Your task to perform on an android device: What's the news in Colombia? Image 0: 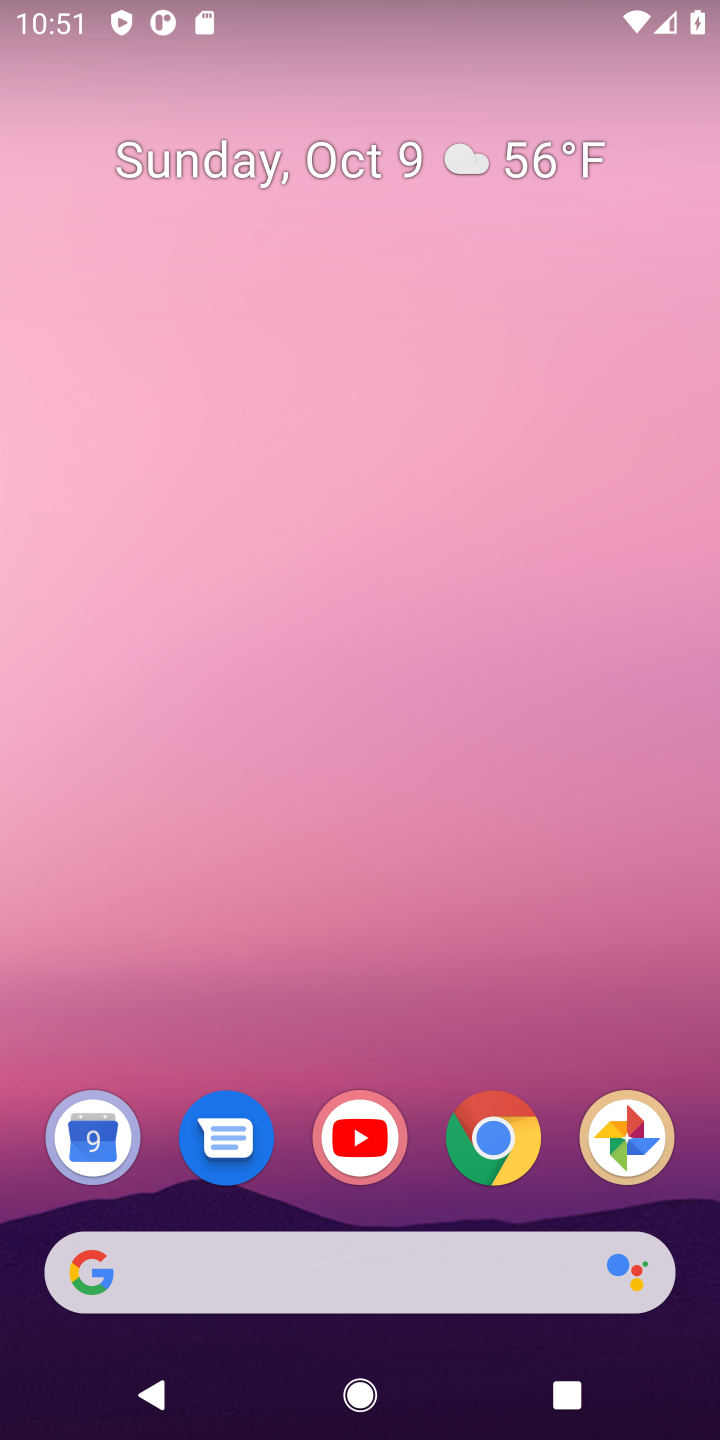
Step 0: drag from (402, 1024) to (326, 80)
Your task to perform on an android device: What's the news in Colombia? Image 1: 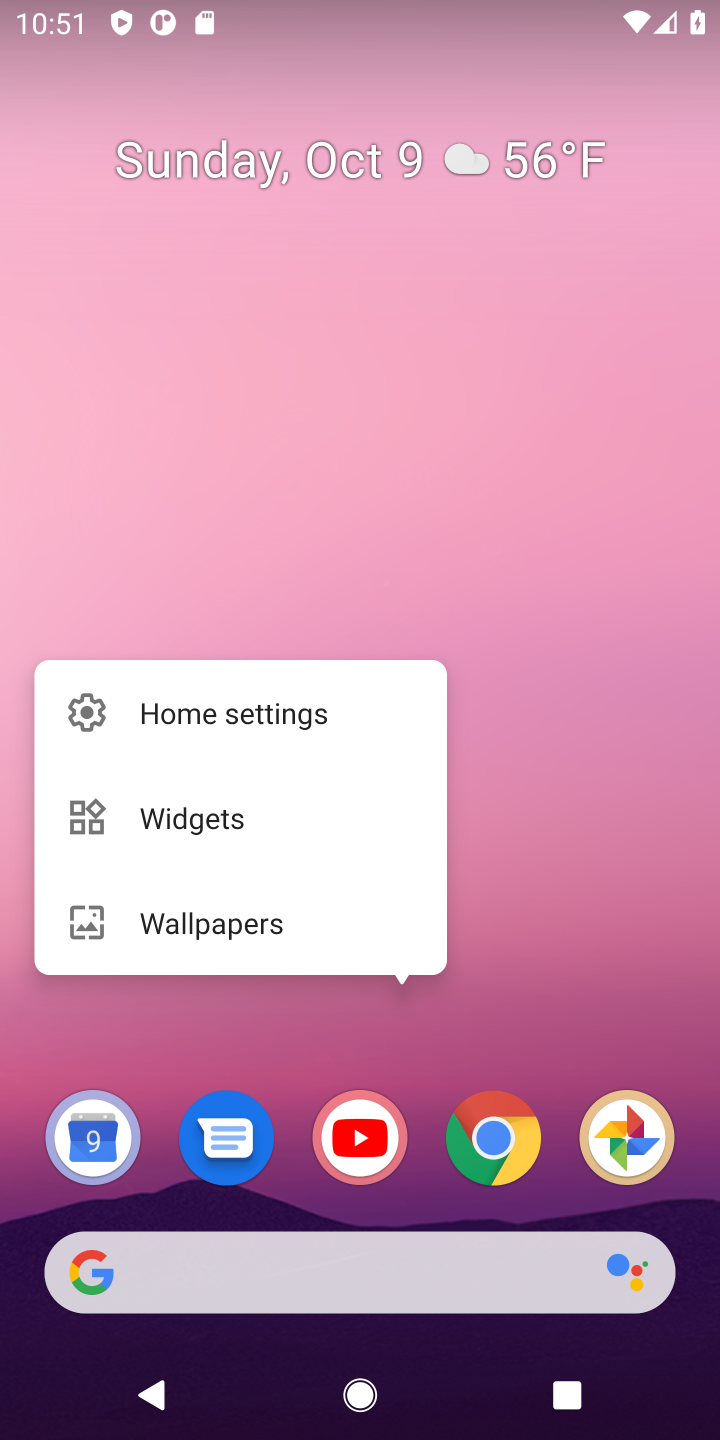
Step 1: click (568, 925)
Your task to perform on an android device: What's the news in Colombia? Image 2: 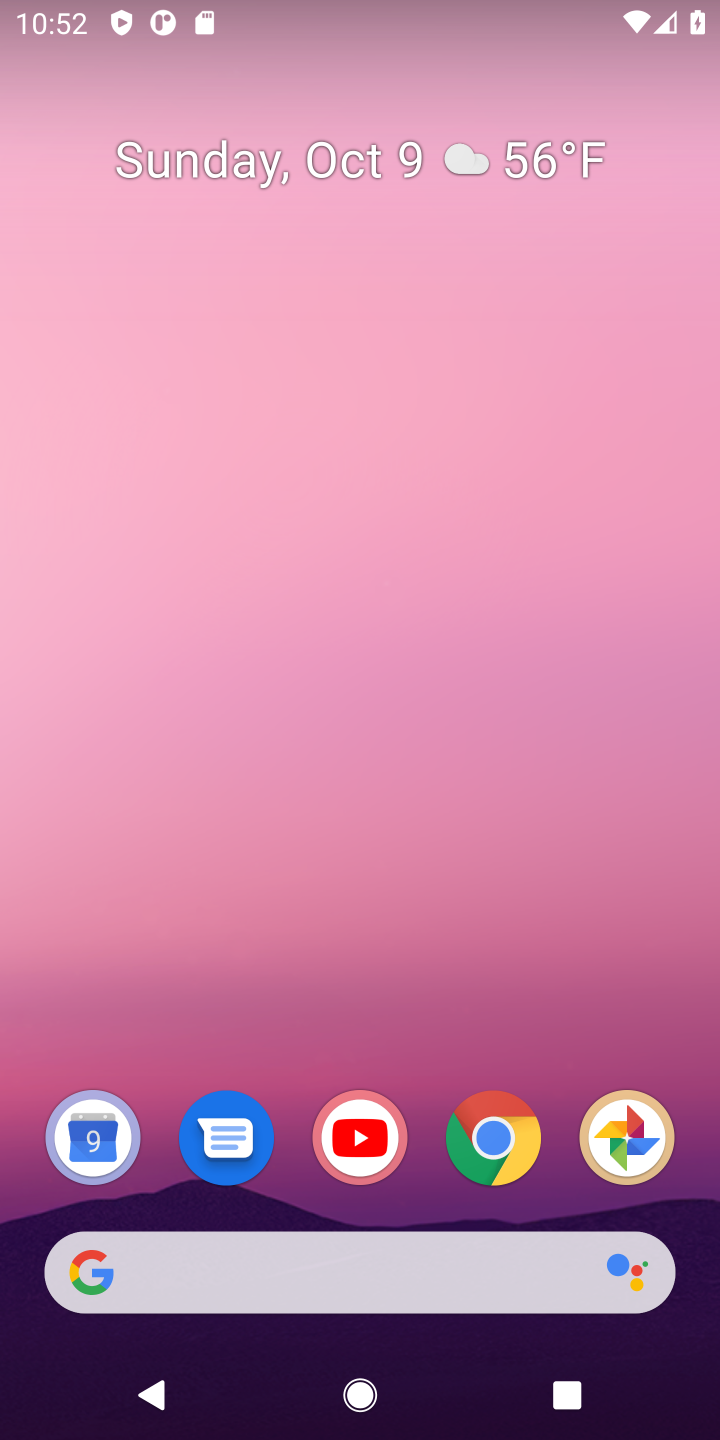
Step 2: drag from (564, 1094) to (401, 201)
Your task to perform on an android device: What's the news in Colombia? Image 3: 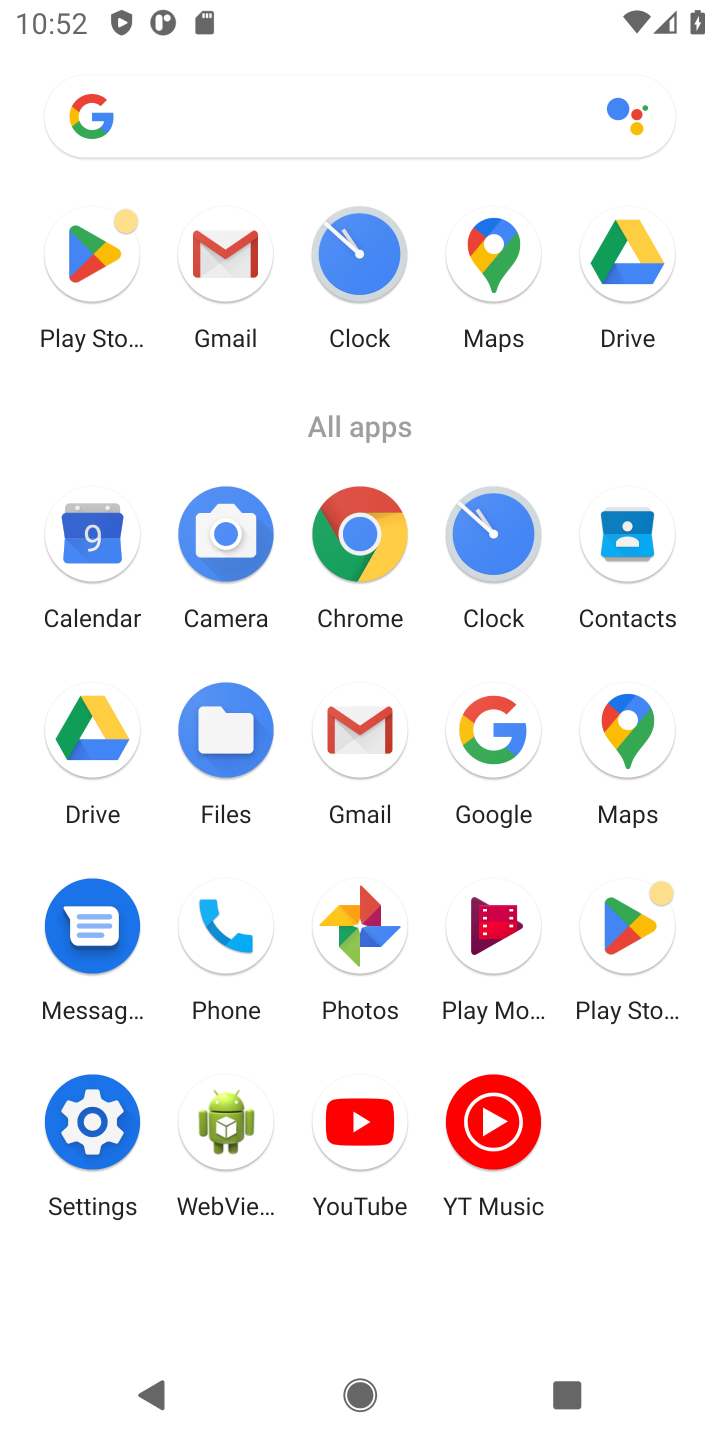
Step 3: click (348, 549)
Your task to perform on an android device: What's the news in Colombia? Image 4: 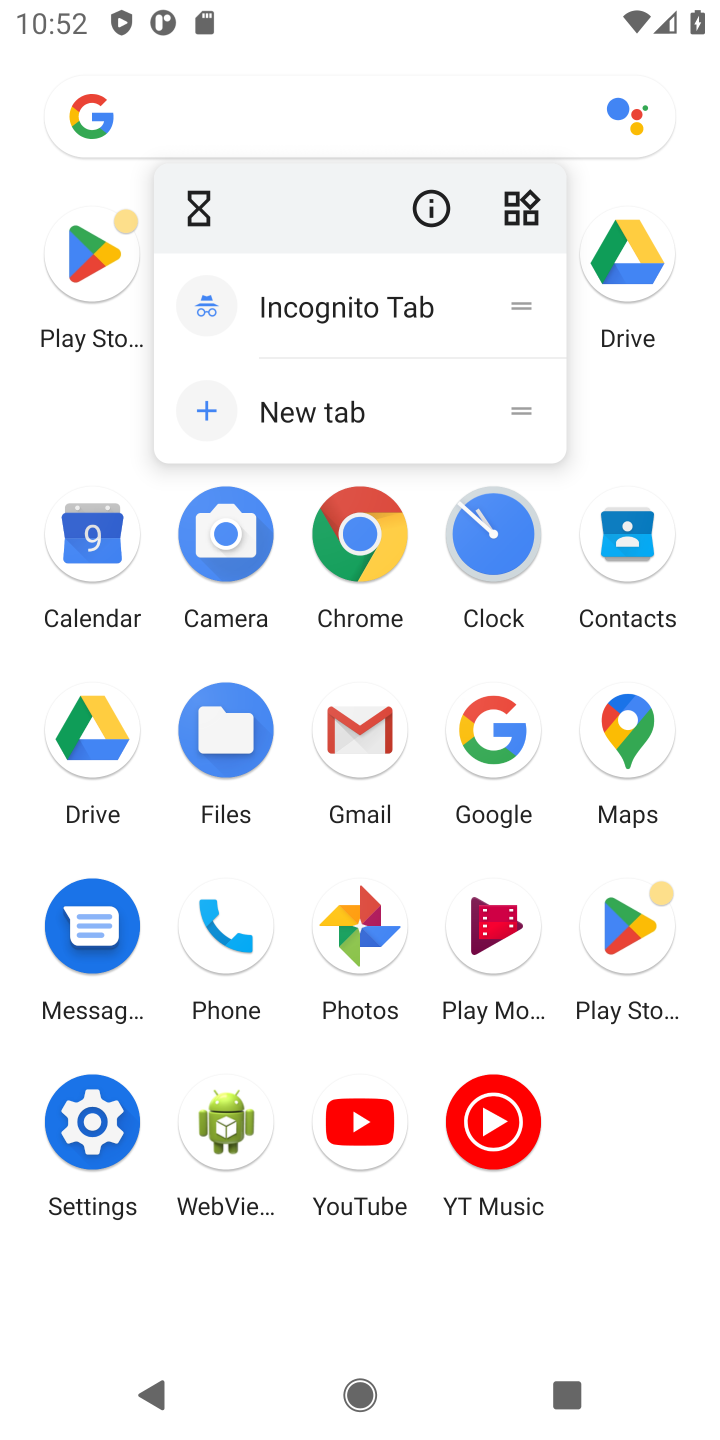
Step 4: click (359, 535)
Your task to perform on an android device: What's the news in Colombia? Image 5: 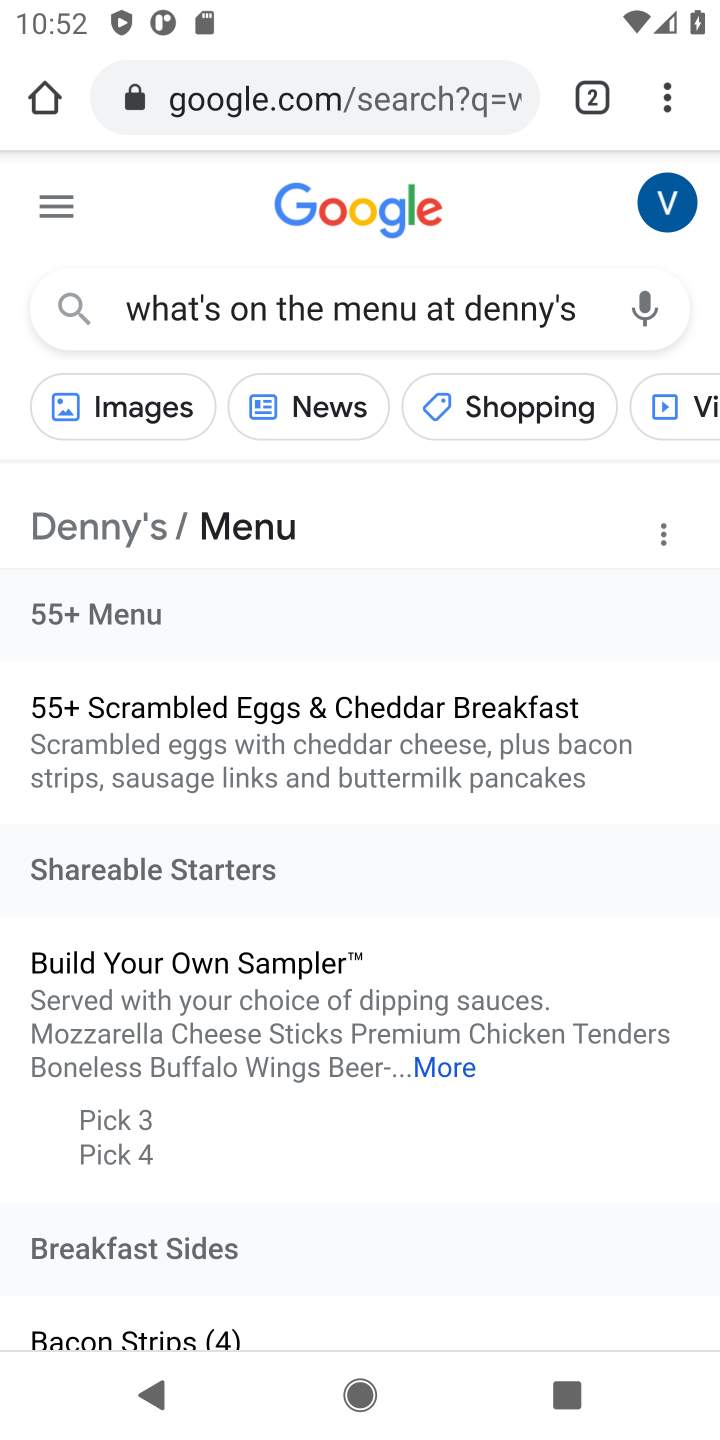
Step 5: click (248, 100)
Your task to perform on an android device: What's the news in Colombia? Image 6: 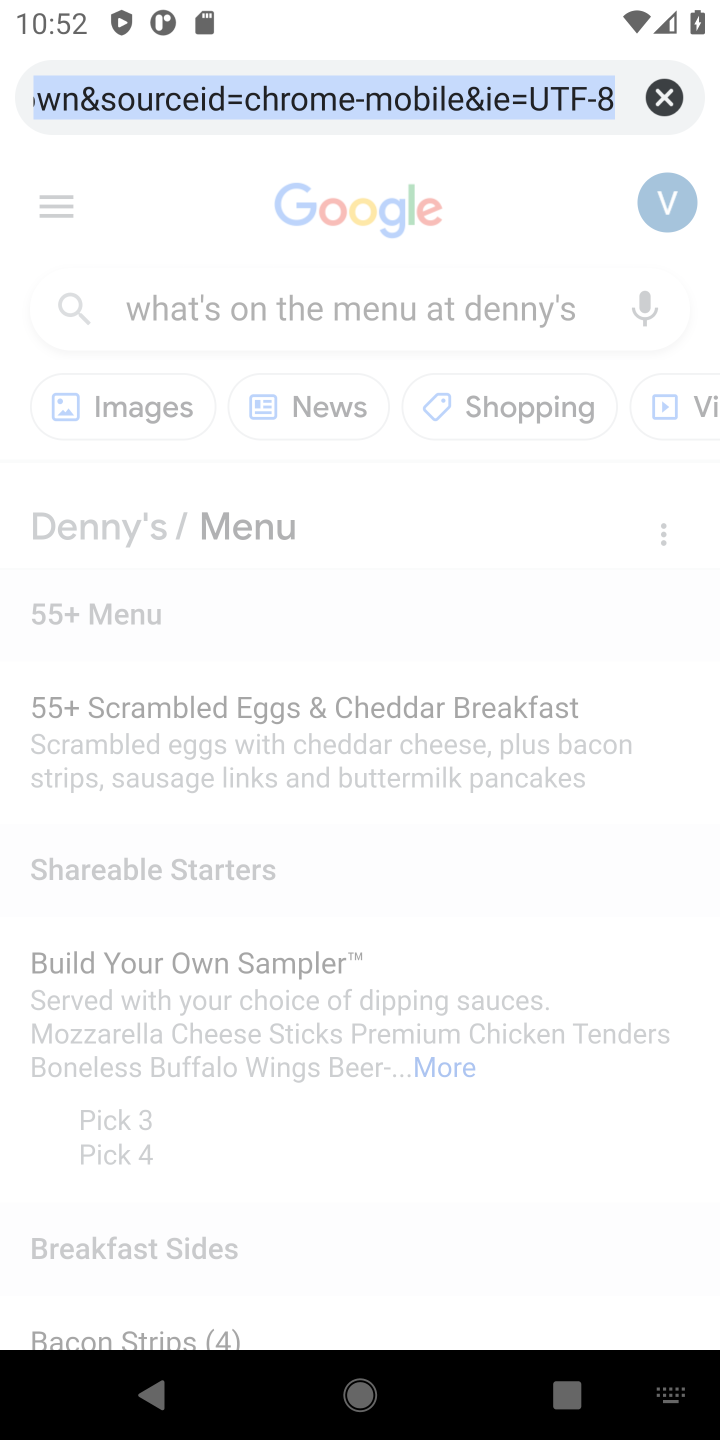
Step 6: click (658, 78)
Your task to perform on an android device: What's the news in Colombia? Image 7: 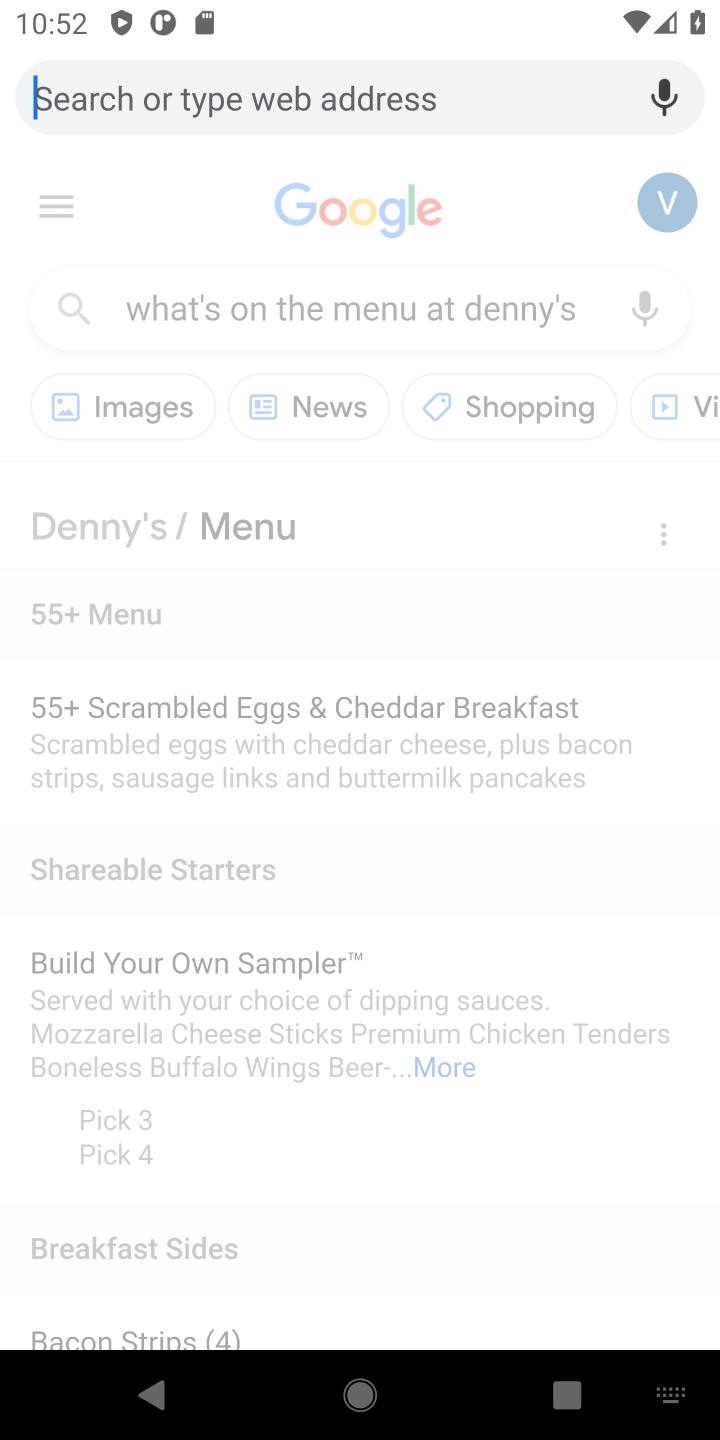
Step 7: type "What's the news in Colombia?"
Your task to perform on an android device: What's the news in Colombia? Image 8: 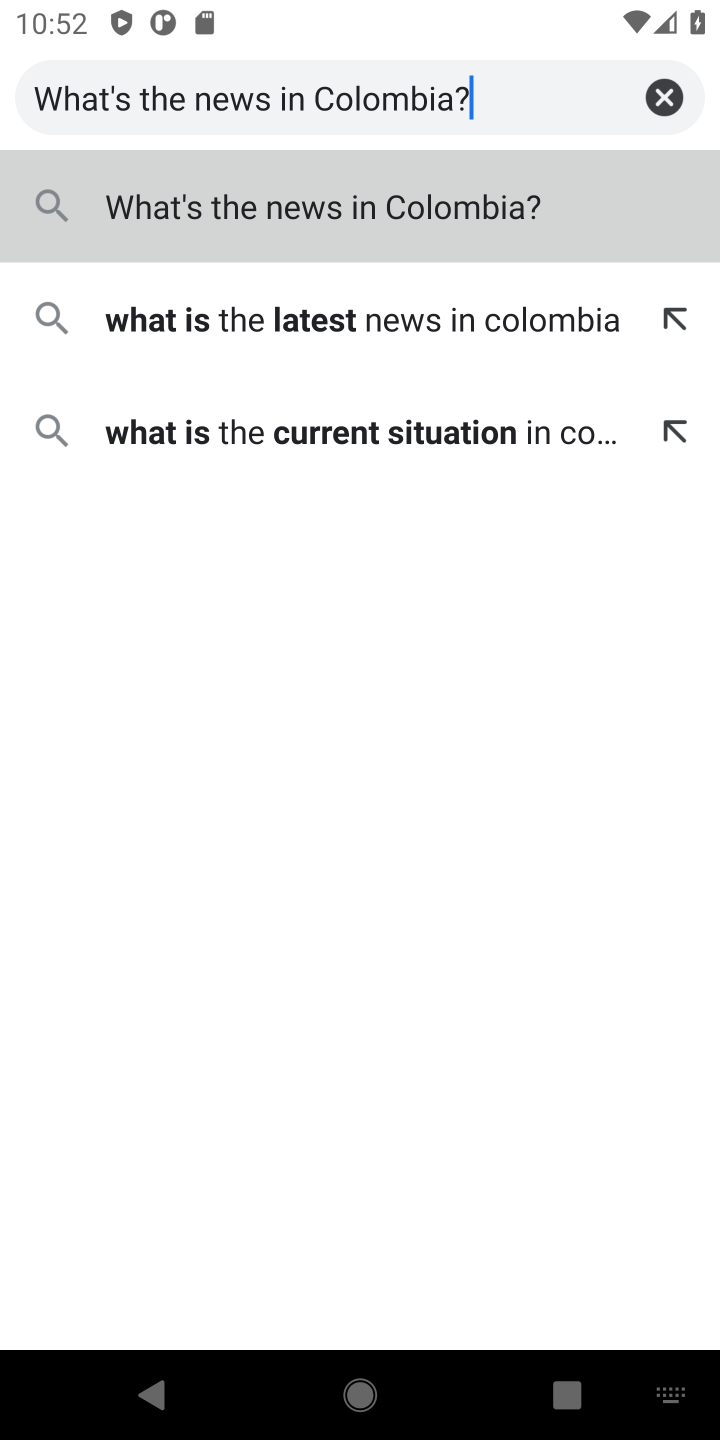
Step 8: click (293, 213)
Your task to perform on an android device: What's the news in Colombia? Image 9: 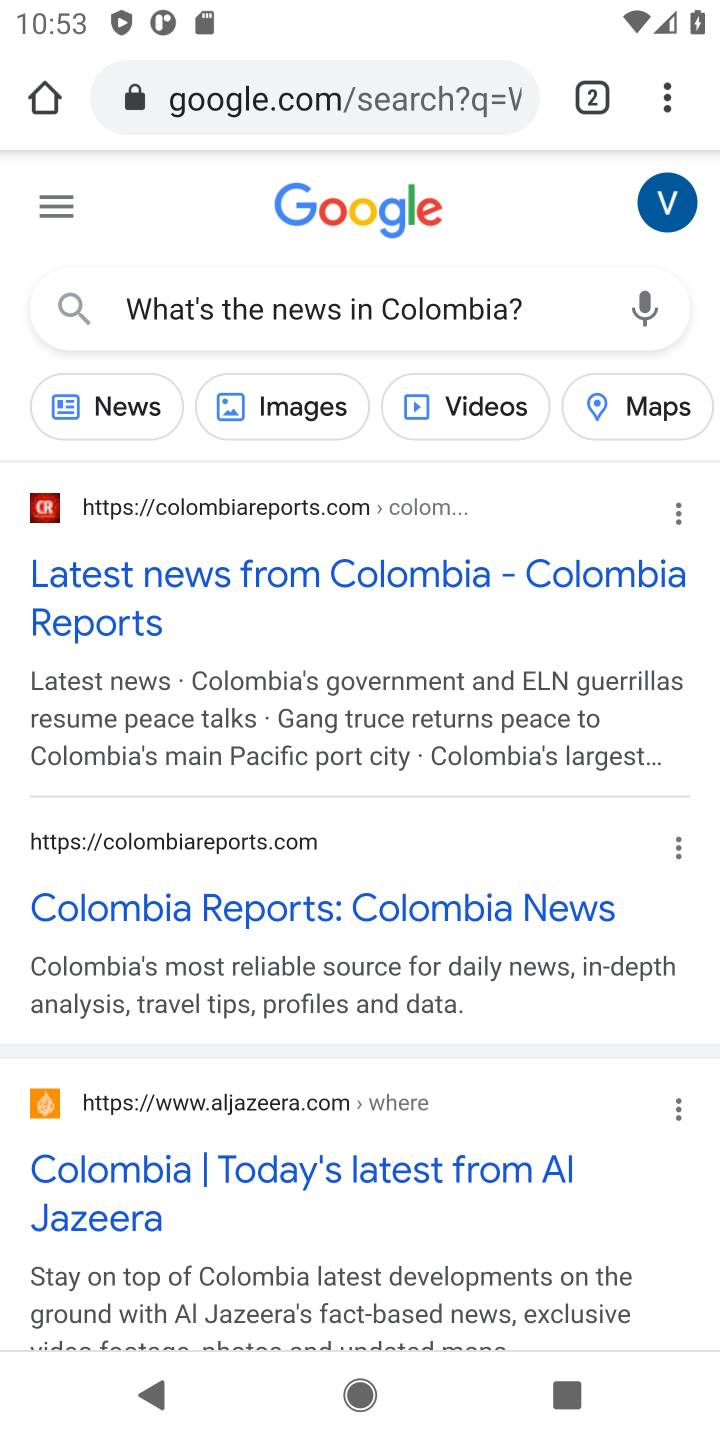
Step 9: task complete